Your task to perform on an android device: Go to sound settings Image 0: 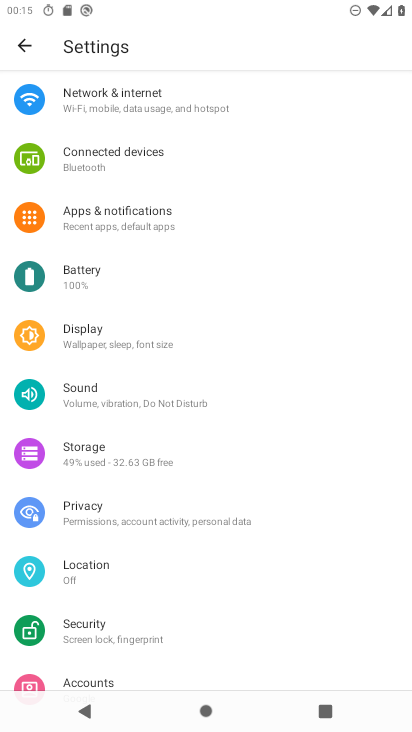
Step 0: click (157, 392)
Your task to perform on an android device: Go to sound settings Image 1: 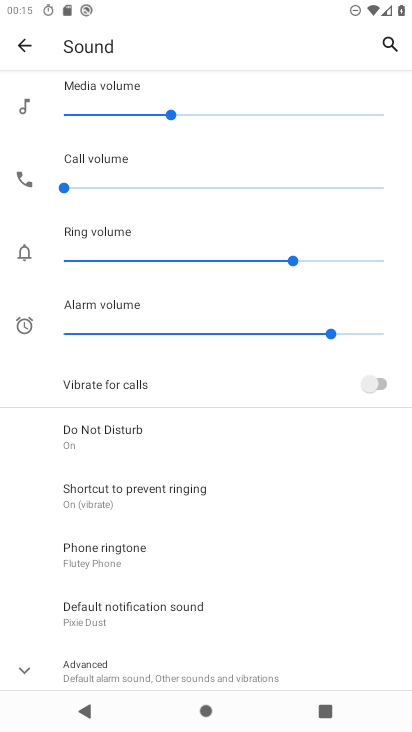
Step 1: task complete